Your task to perform on an android device: check google app version Image 0: 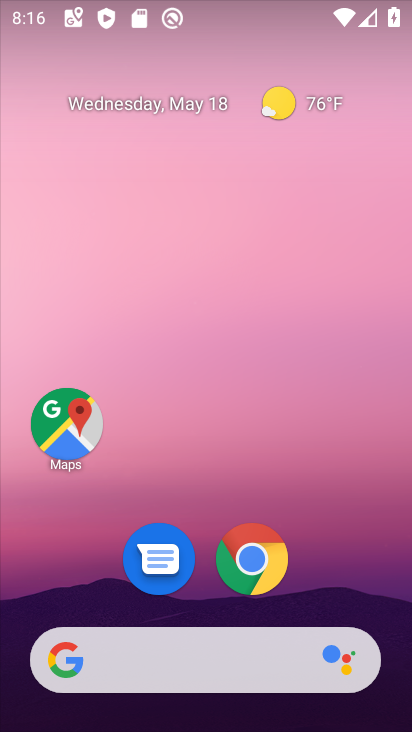
Step 0: drag from (210, 586) to (253, 109)
Your task to perform on an android device: check google app version Image 1: 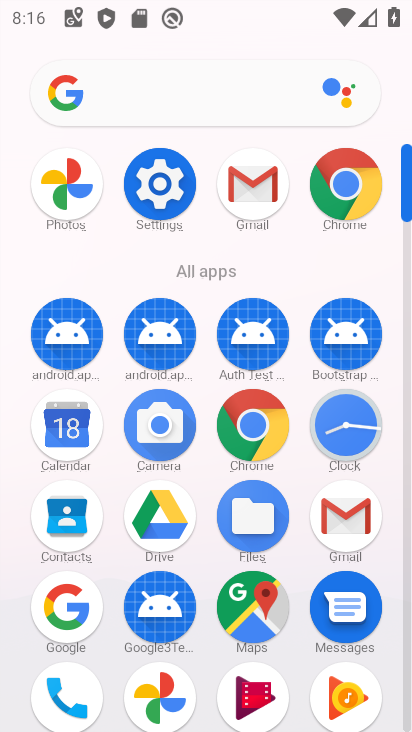
Step 1: click (77, 607)
Your task to perform on an android device: check google app version Image 2: 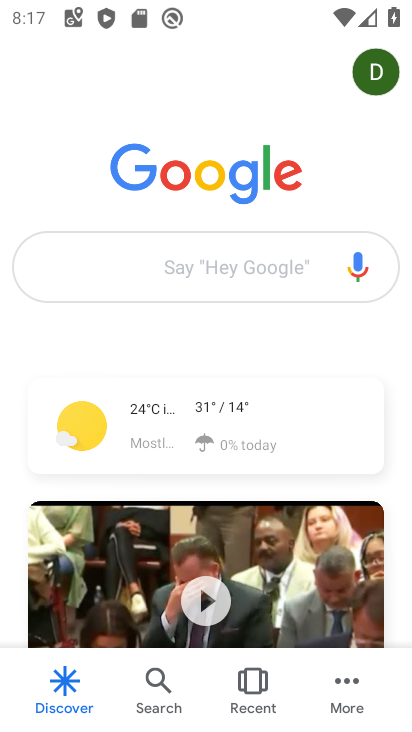
Step 2: click (345, 692)
Your task to perform on an android device: check google app version Image 3: 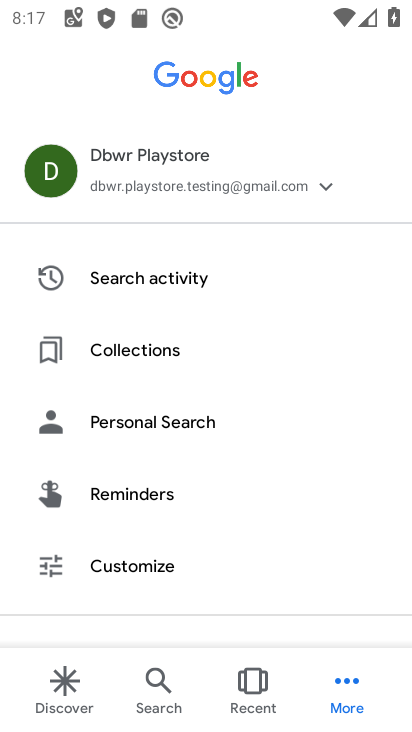
Step 3: drag from (209, 506) to (228, 119)
Your task to perform on an android device: check google app version Image 4: 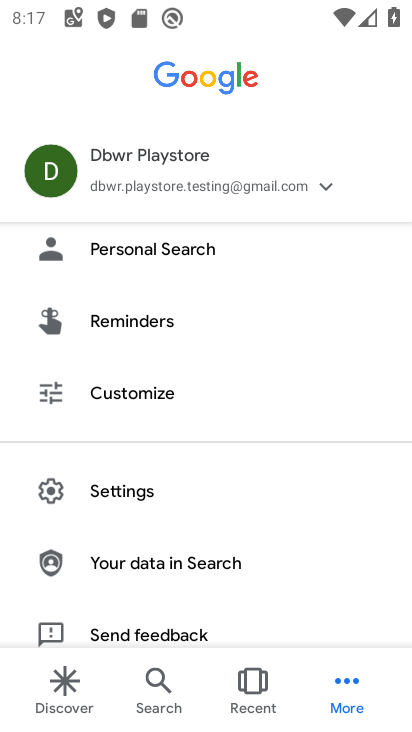
Step 4: click (110, 489)
Your task to perform on an android device: check google app version Image 5: 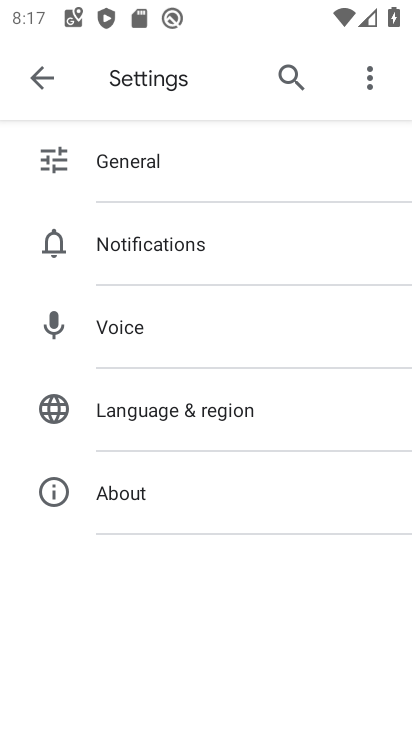
Step 5: click (158, 501)
Your task to perform on an android device: check google app version Image 6: 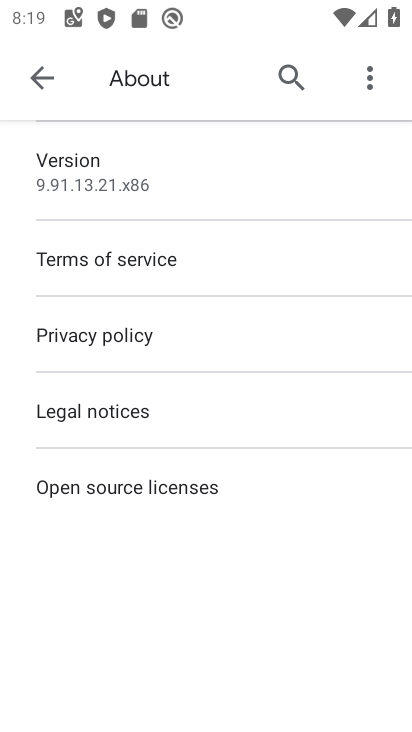
Step 6: task complete